Your task to perform on an android device: install app "Firefox Browser" Image 0: 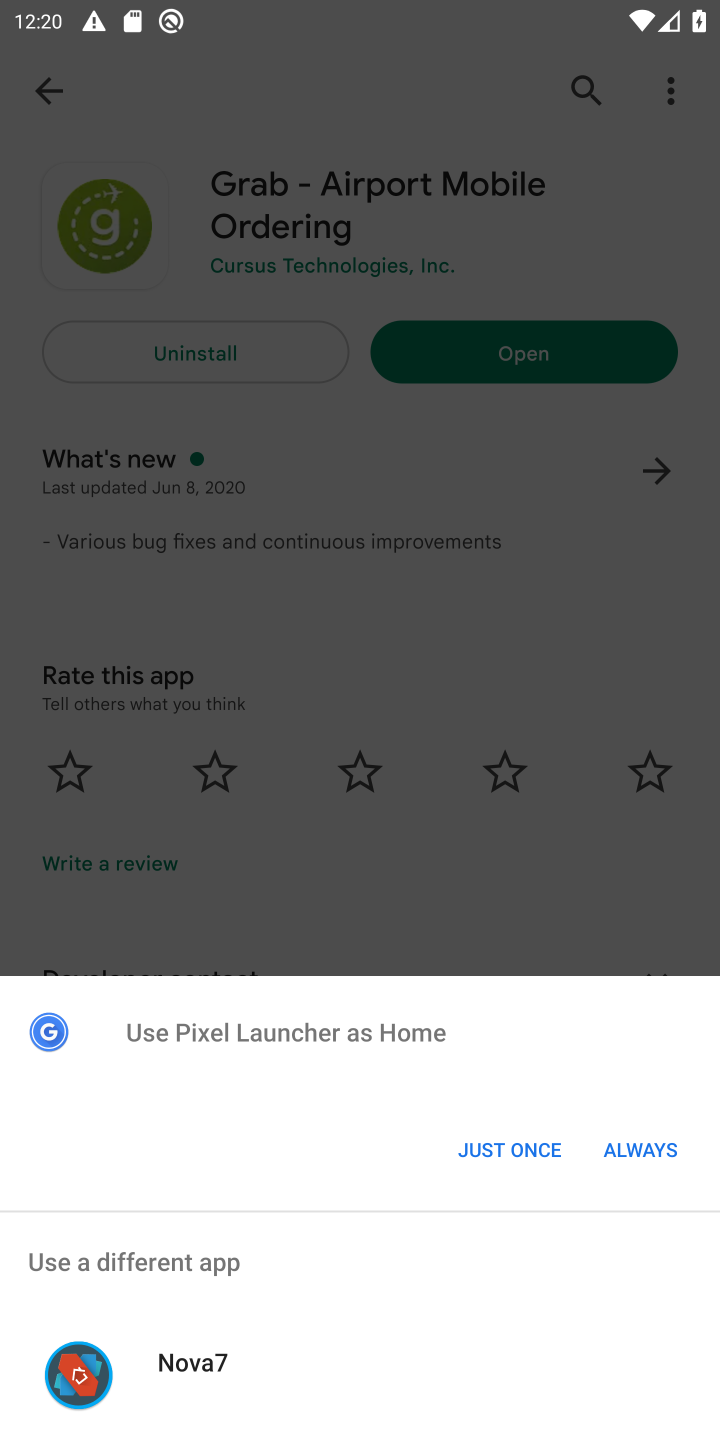
Step 0: click (492, 1142)
Your task to perform on an android device: install app "Firefox Browser" Image 1: 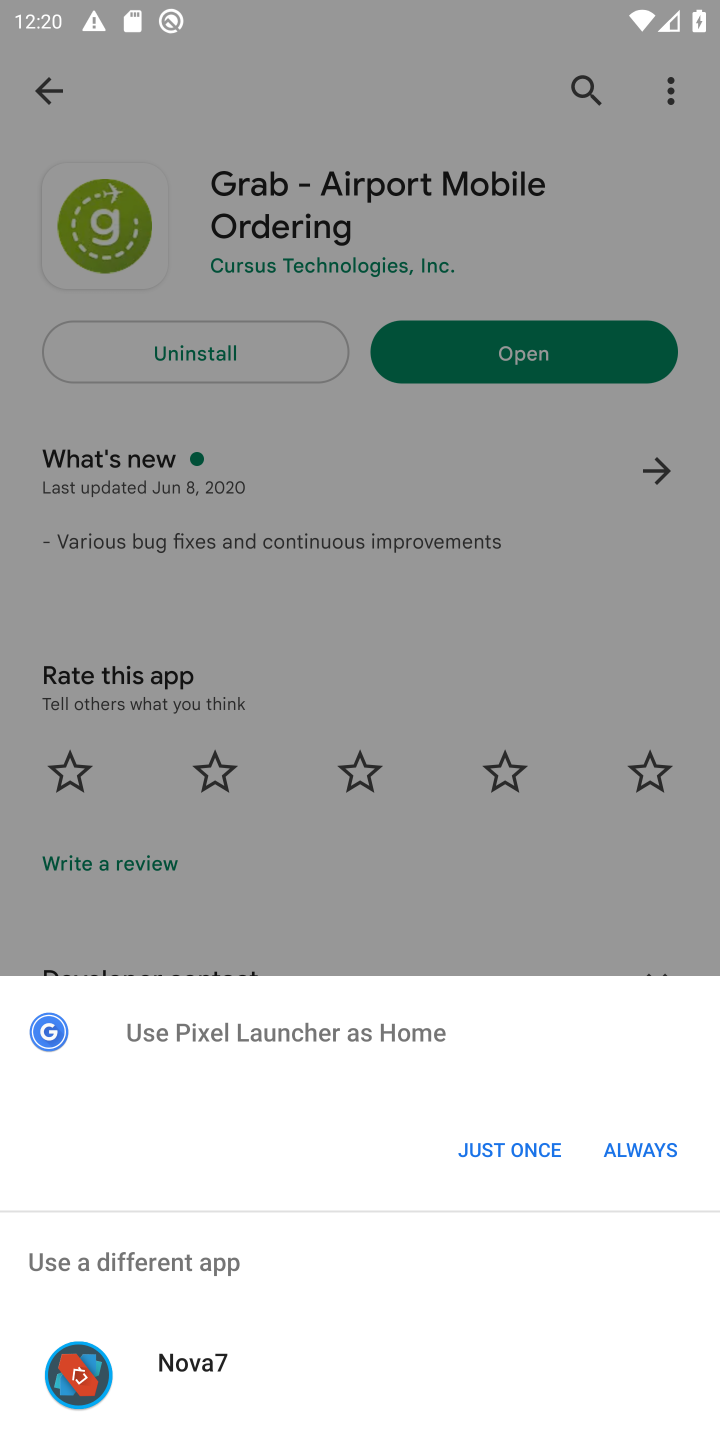
Step 1: click (640, 1129)
Your task to perform on an android device: install app "Firefox Browser" Image 2: 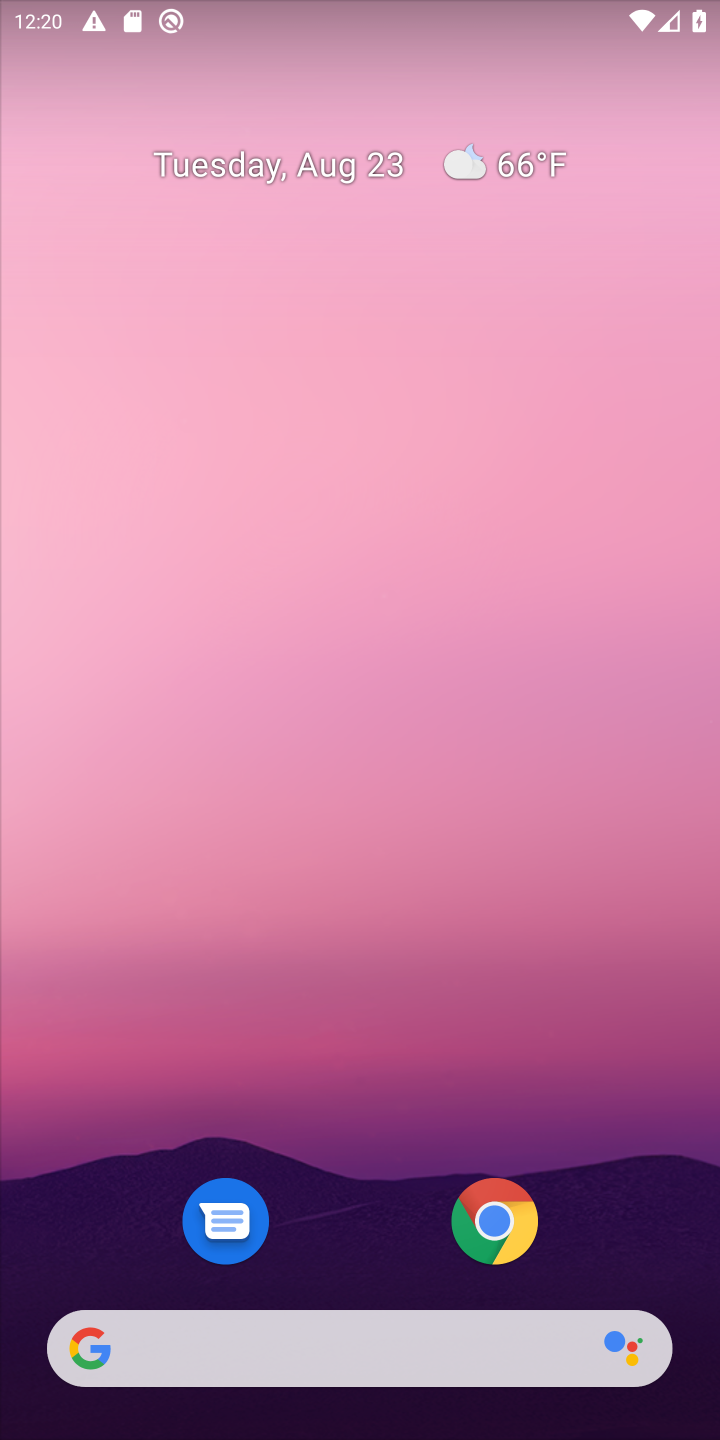
Step 2: drag from (402, 1011) to (486, 177)
Your task to perform on an android device: install app "Firefox Browser" Image 3: 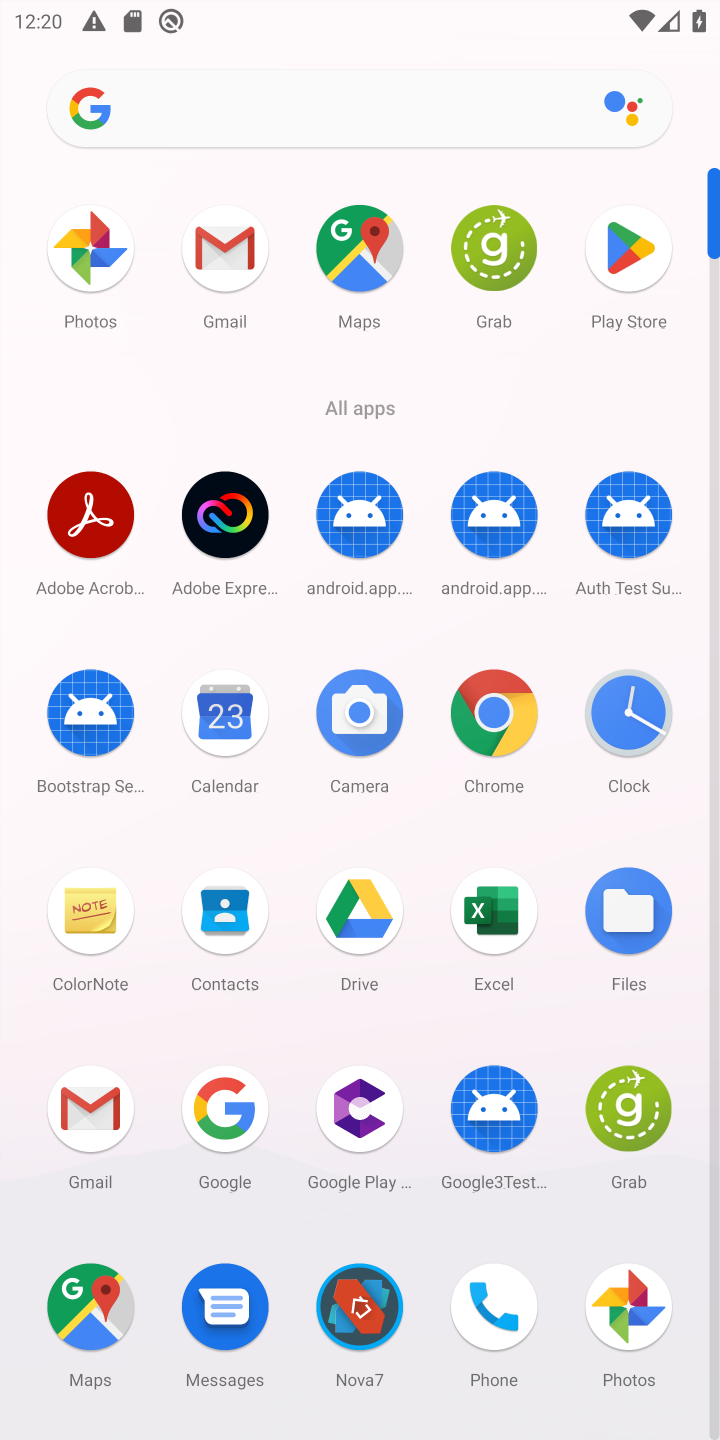
Step 3: click (635, 245)
Your task to perform on an android device: install app "Firefox Browser" Image 4: 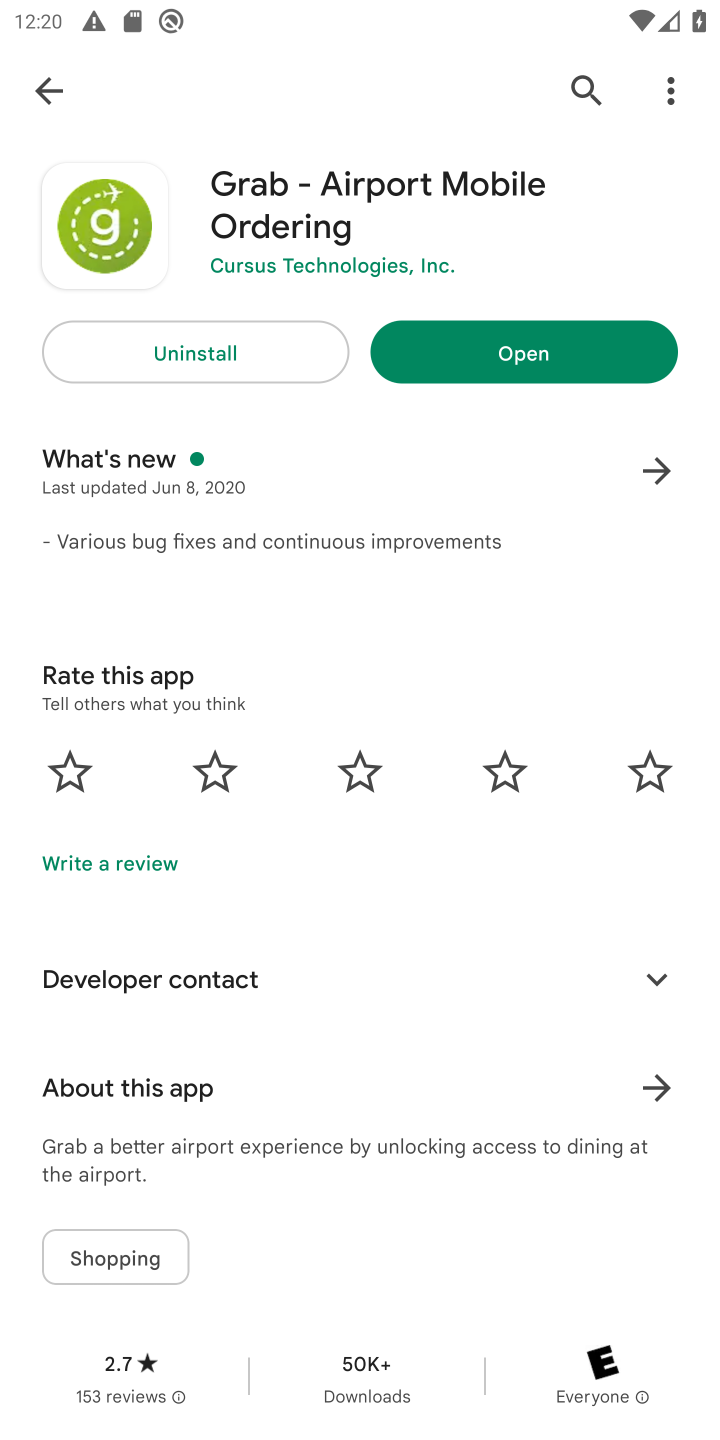
Step 4: click (584, 77)
Your task to perform on an android device: install app "Firefox Browser" Image 5: 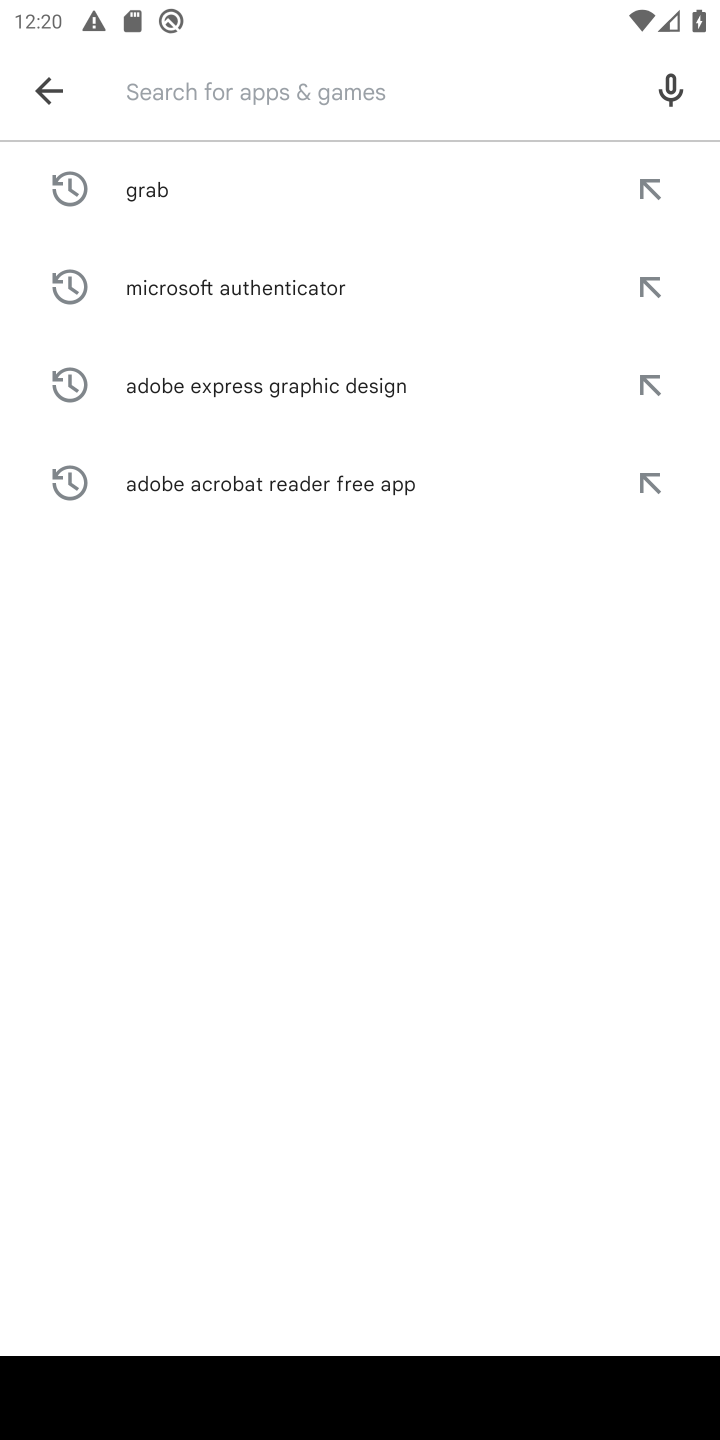
Step 5: click (253, 82)
Your task to perform on an android device: install app "Firefox Browser" Image 6: 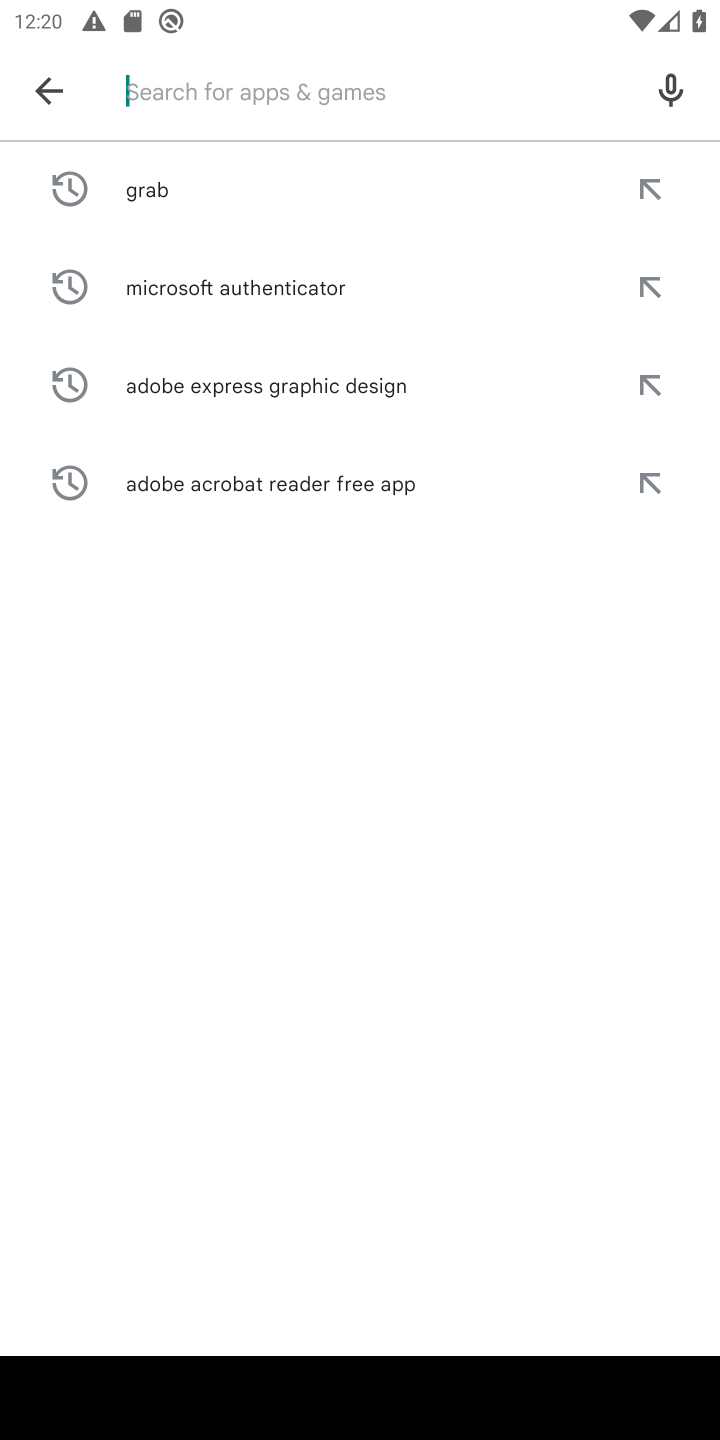
Step 6: type "Firefox Browser"
Your task to perform on an android device: install app "Firefox Browser" Image 7: 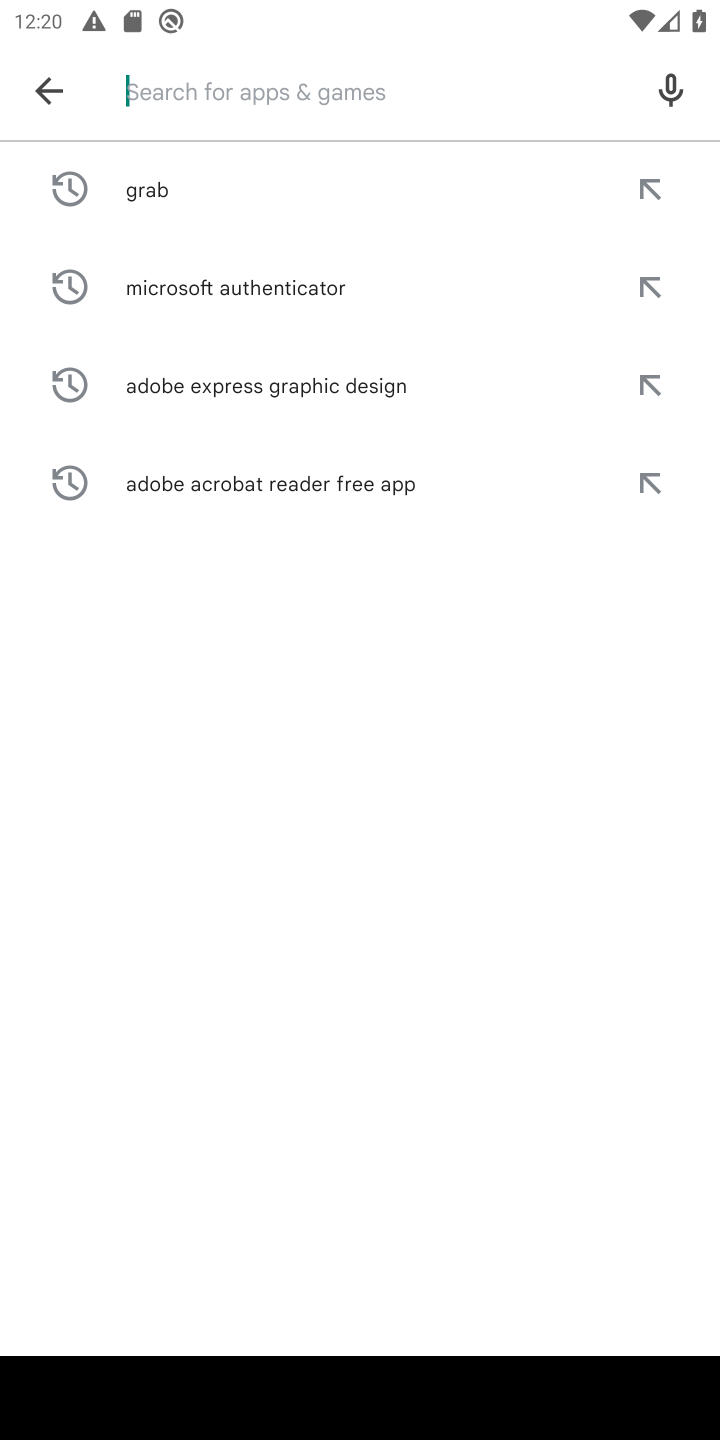
Step 7: click (349, 1032)
Your task to perform on an android device: install app "Firefox Browser" Image 8: 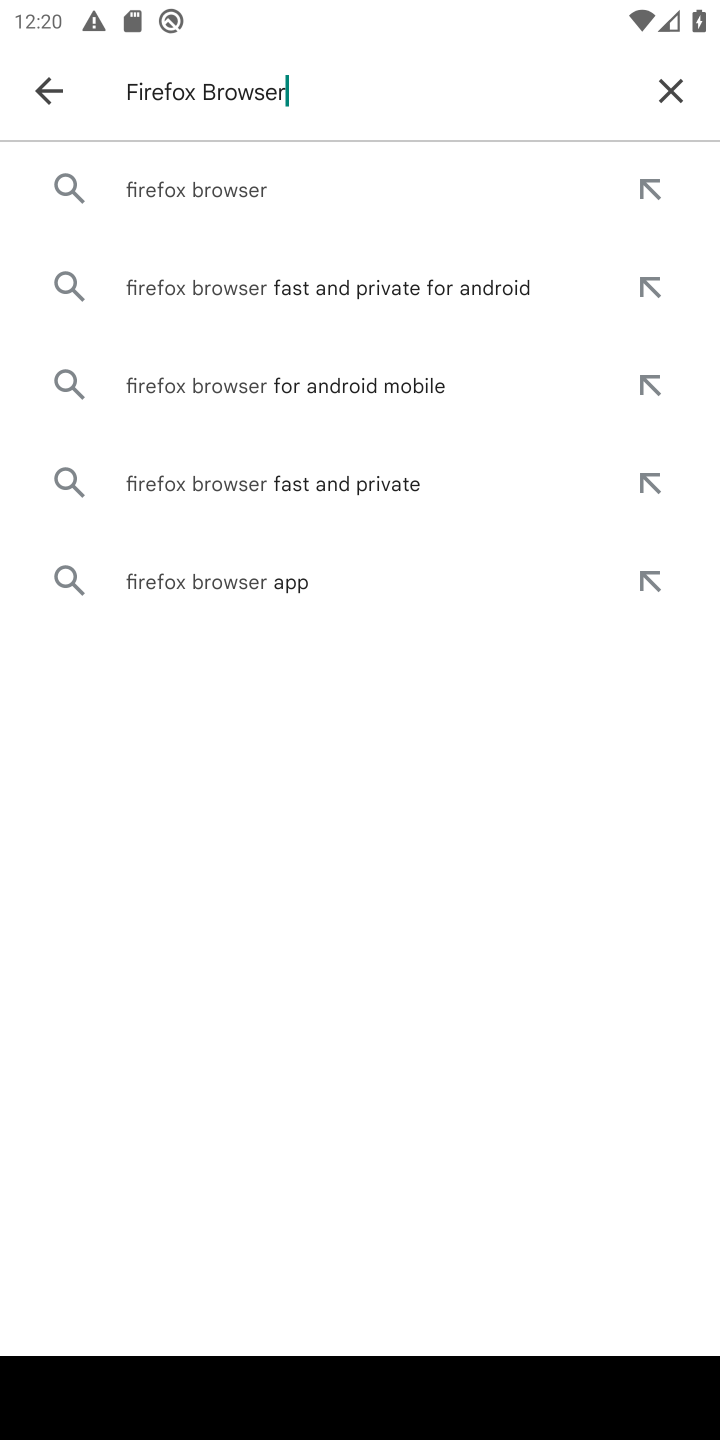
Step 8: click (180, 212)
Your task to perform on an android device: install app "Firefox Browser" Image 9: 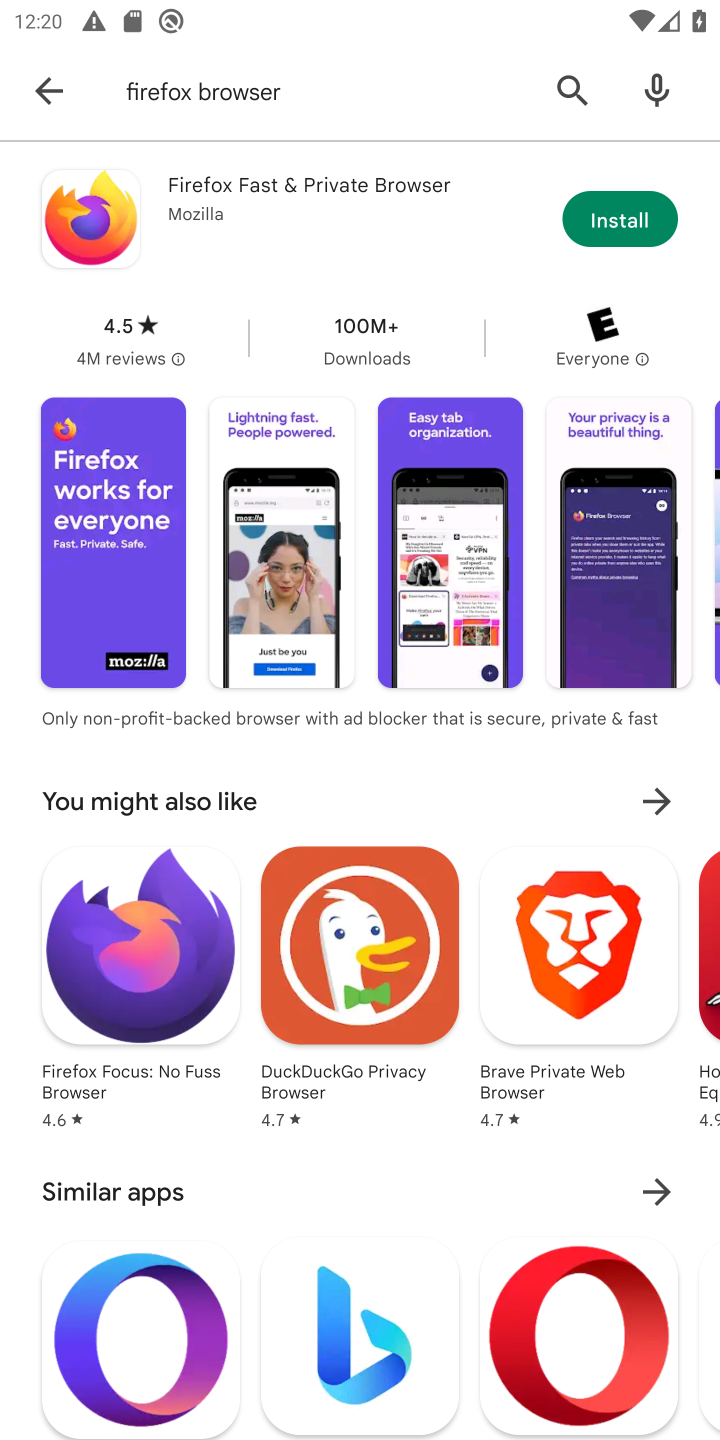
Step 9: click (612, 204)
Your task to perform on an android device: install app "Firefox Browser" Image 10: 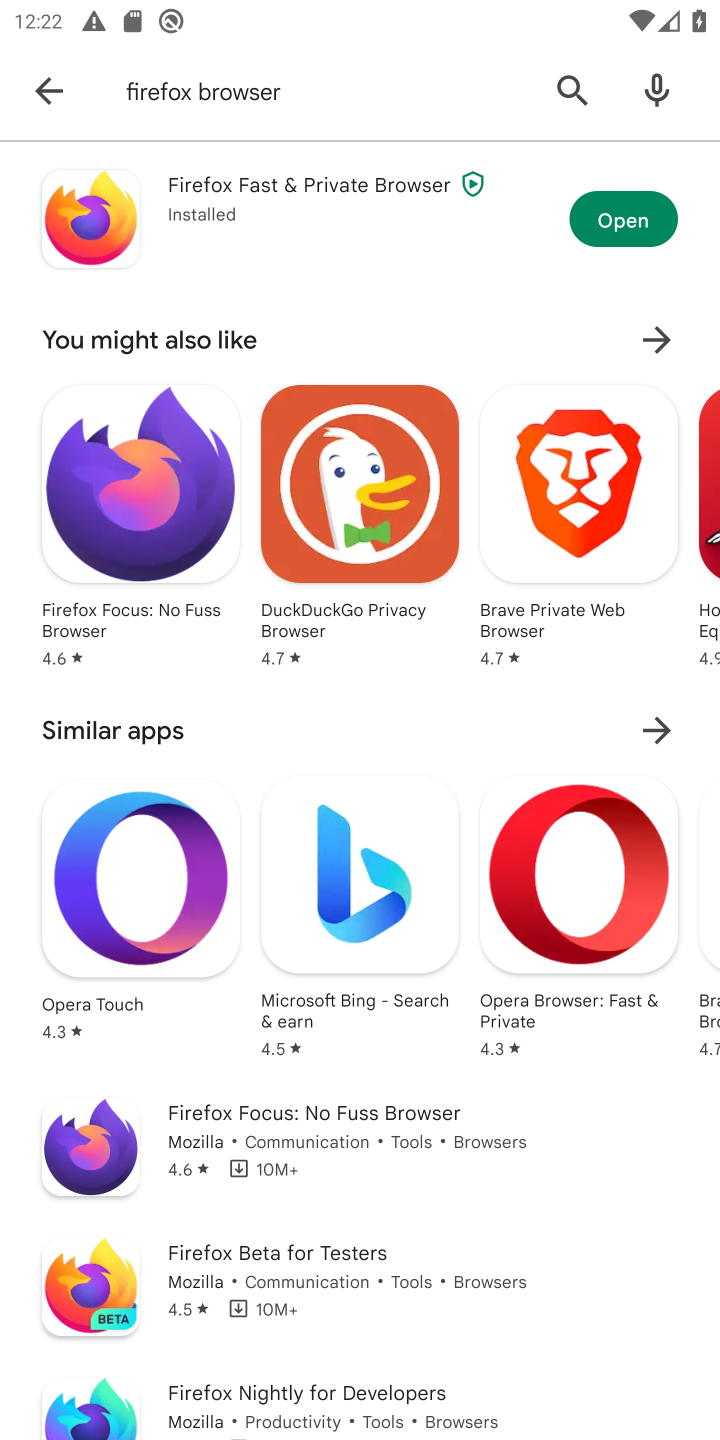
Step 10: task complete